Your task to perform on an android device: Open CNN.com Image 0: 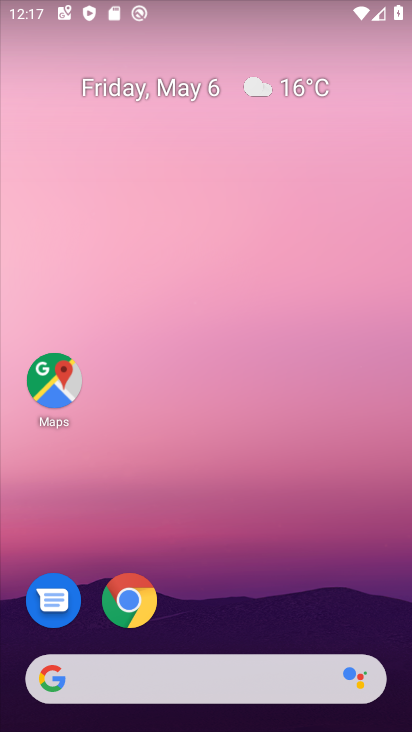
Step 0: click (182, 664)
Your task to perform on an android device: Open CNN.com Image 1: 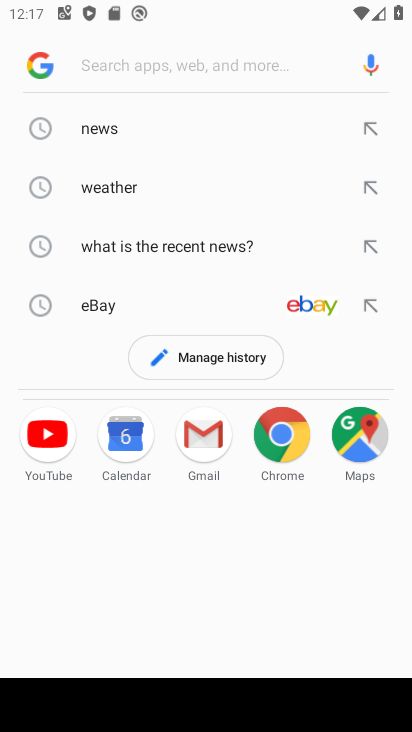
Step 1: type "cnn"
Your task to perform on an android device: Open CNN.com Image 2: 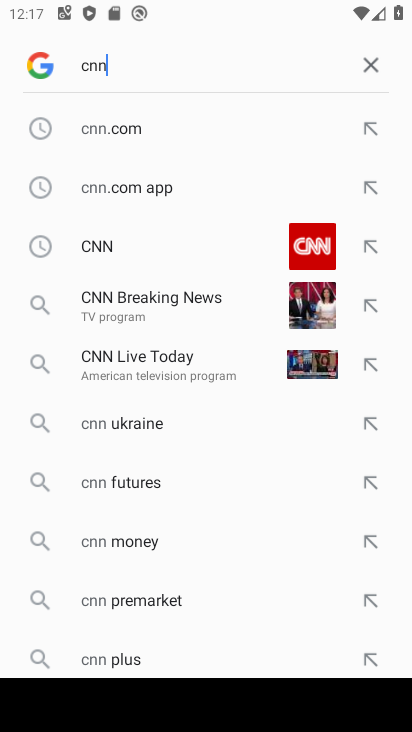
Step 2: click (183, 143)
Your task to perform on an android device: Open CNN.com Image 3: 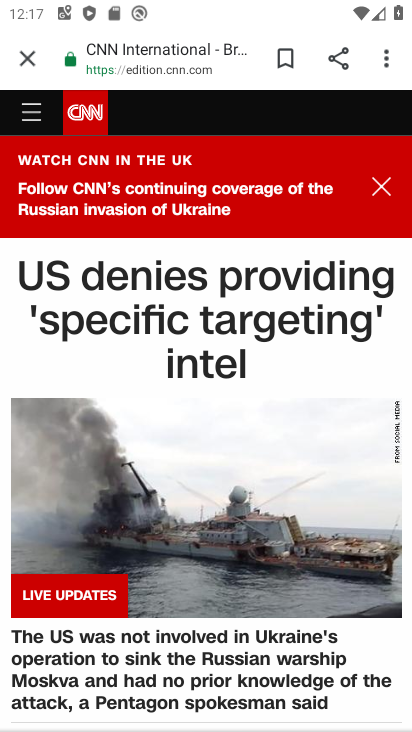
Step 3: task complete